Your task to perform on an android device: Go to accessibility settings Image 0: 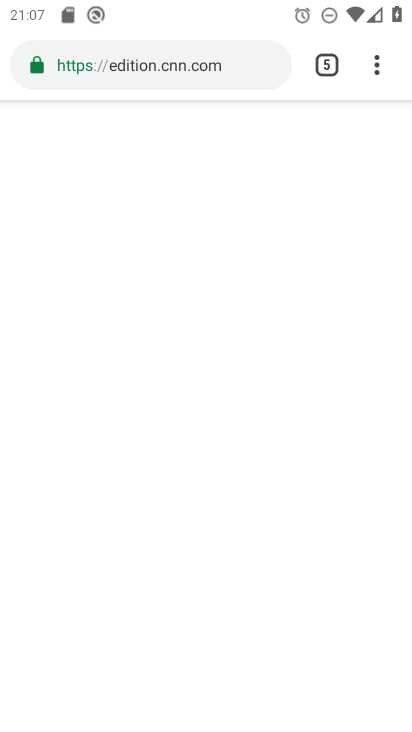
Step 0: press home button
Your task to perform on an android device: Go to accessibility settings Image 1: 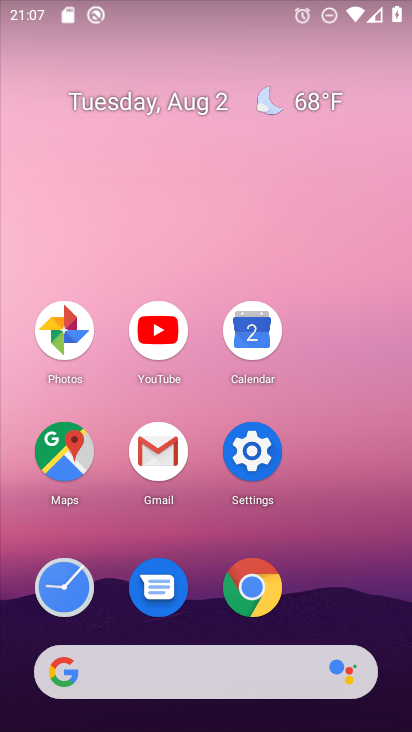
Step 1: click (250, 455)
Your task to perform on an android device: Go to accessibility settings Image 2: 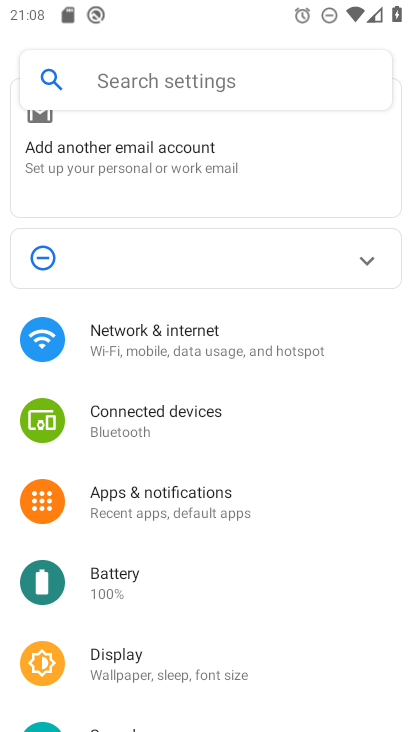
Step 2: drag from (223, 610) to (205, 267)
Your task to perform on an android device: Go to accessibility settings Image 3: 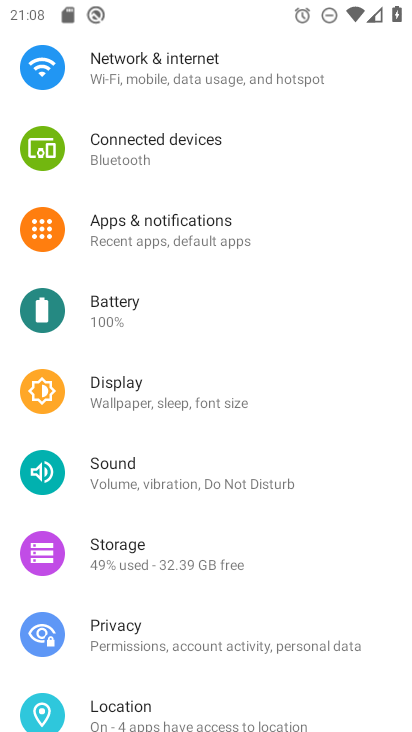
Step 3: drag from (204, 688) to (204, 268)
Your task to perform on an android device: Go to accessibility settings Image 4: 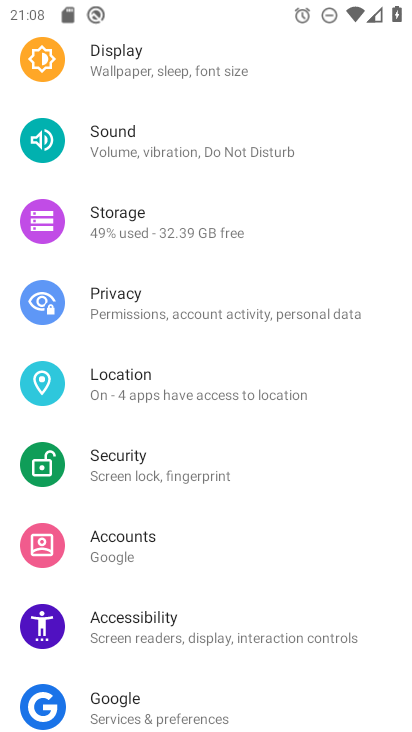
Step 4: click (121, 622)
Your task to perform on an android device: Go to accessibility settings Image 5: 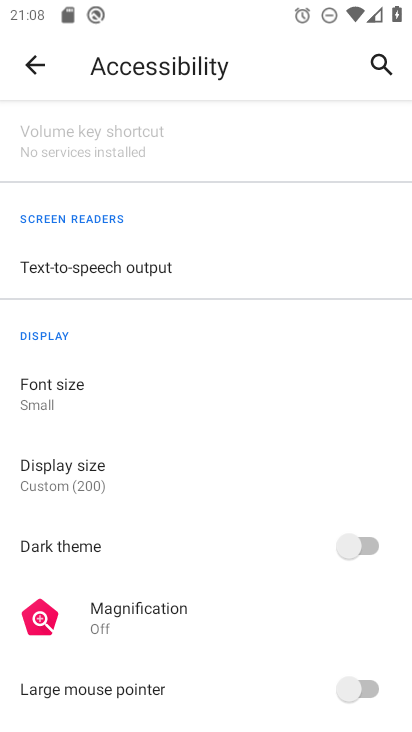
Step 5: task complete